Your task to perform on an android device: change timer sound Image 0: 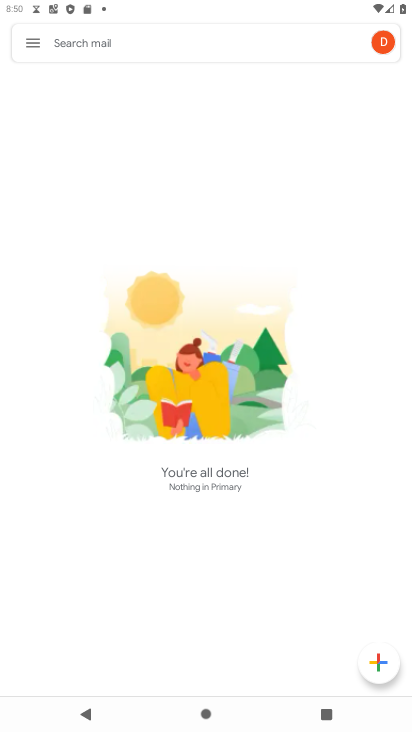
Step 0: press back button
Your task to perform on an android device: change timer sound Image 1: 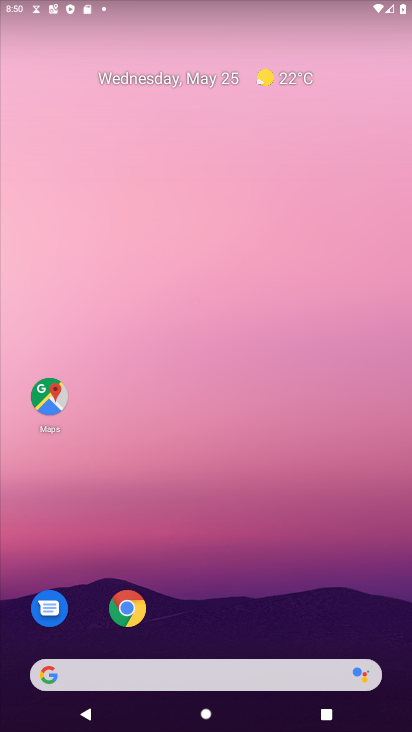
Step 1: drag from (265, 571) to (198, 163)
Your task to perform on an android device: change timer sound Image 2: 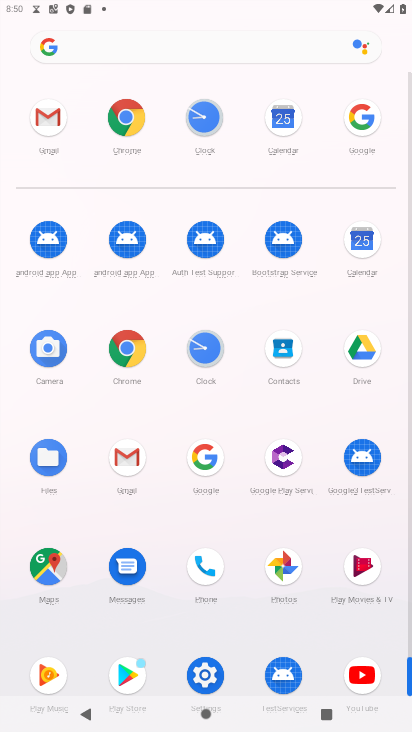
Step 2: click (205, 118)
Your task to perform on an android device: change timer sound Image 3: 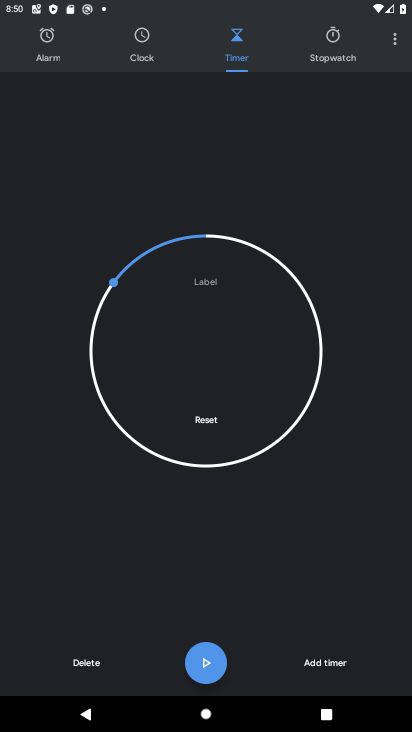
Step 3: click (396, 41)
Your task to perform on an android device: change timer sound Image 4: 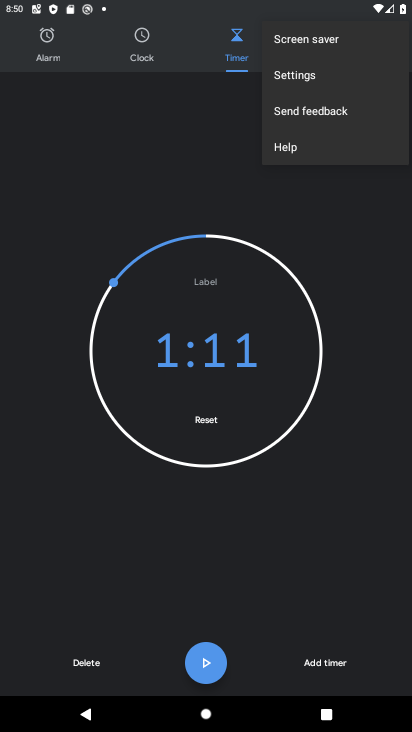
Step 4: click (308, 79)
Your task to perform on an android device: change timer sound Image 5: 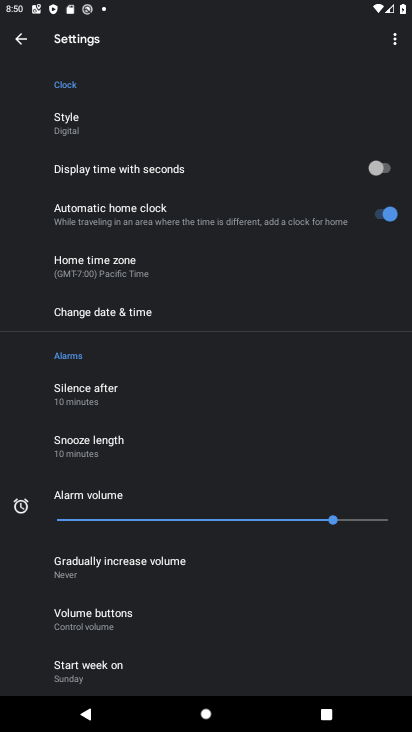
Step 5: drag from (168, 458) to (222, 318)
Your task to perform on an android device: change timer sound Image 6: 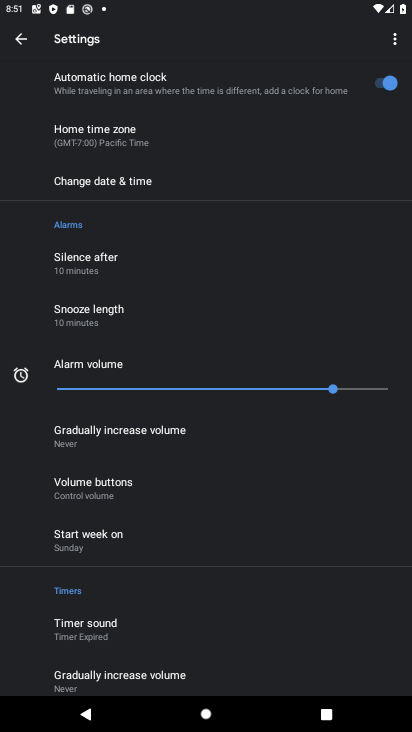
Step 6: drag from (173, 536) to (258, 427)
Your task to perform on an android device: change timer sound Image 7: 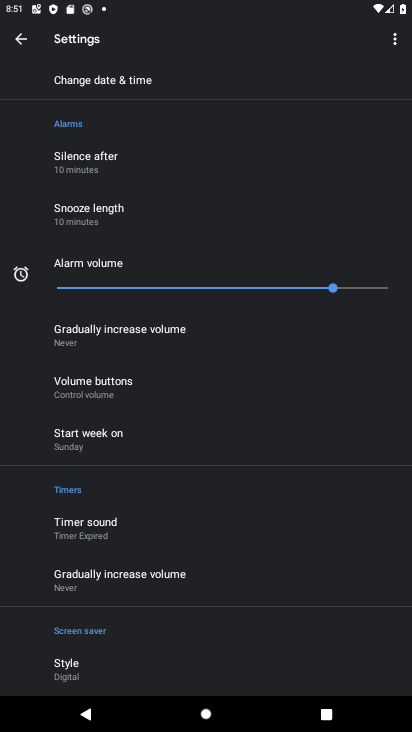
Step 7: click (106, 529)
Your task to perform on an android device: change timer sound Image 8: 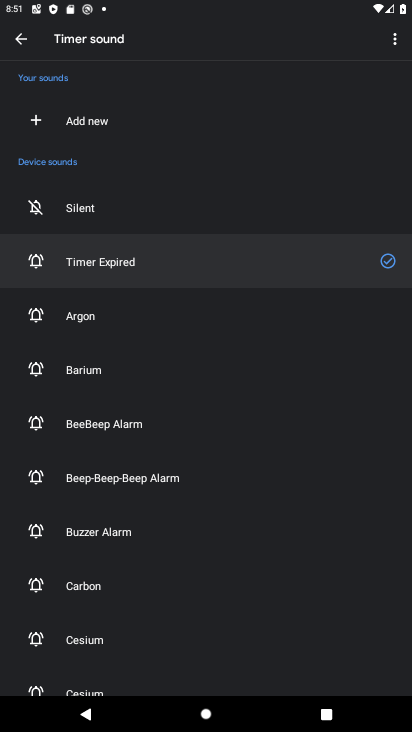
Step 8: drag from (93, 515) to (154, 414)
Your task to perform on an android device: change timer sound Image 9: 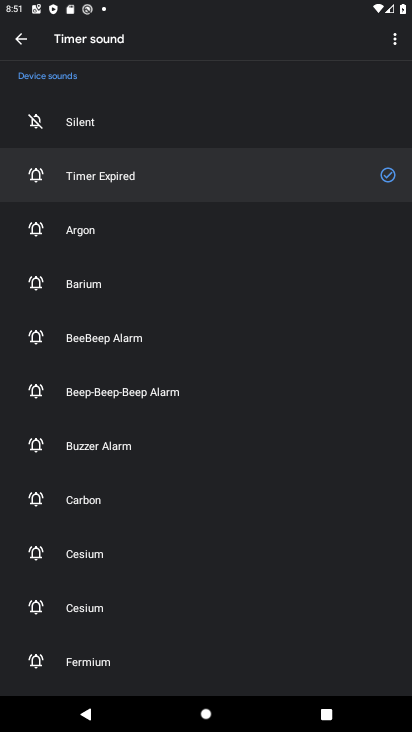
Step 9: drag from (99, 528) to (161, 441)
Your task to perform on an android device: change timer sound Image 10: 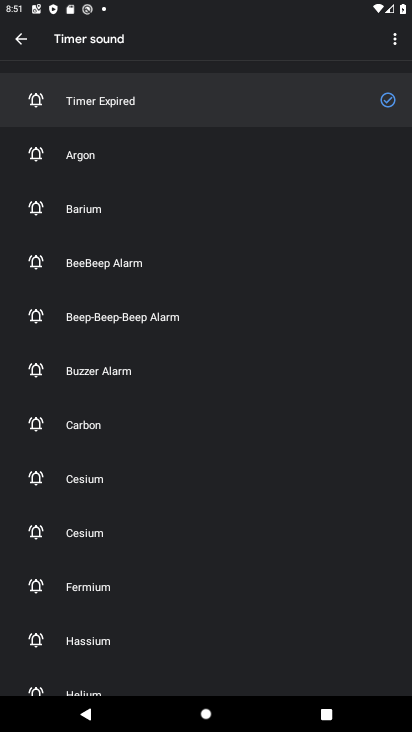
Step 10: drag from (109, 550) to (176, 466)
Your task to perform on an android device: change timer sound Image 11: 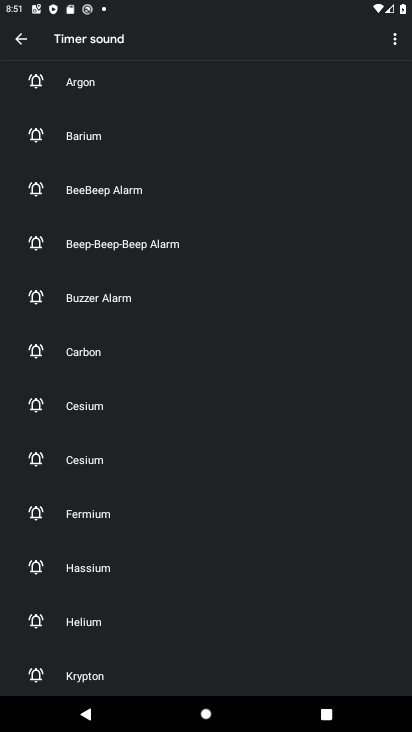
Step 11: click (94, 451)
Your task to perform on an android device: change timer sound Image 12: 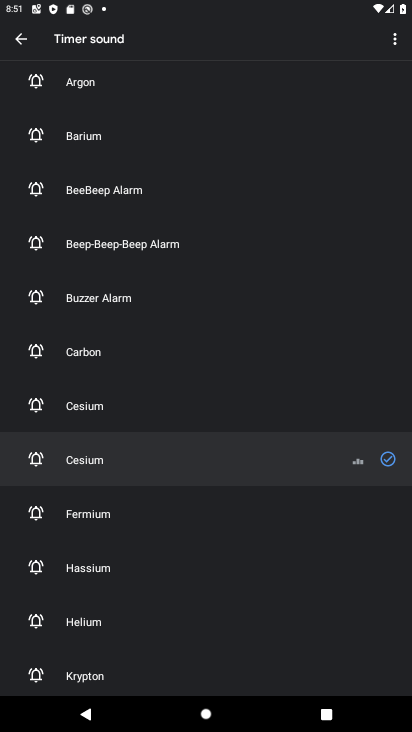
Step 12: task complete